Your task to perform on an android device: make emails show in primary in the gmail app Image 0: 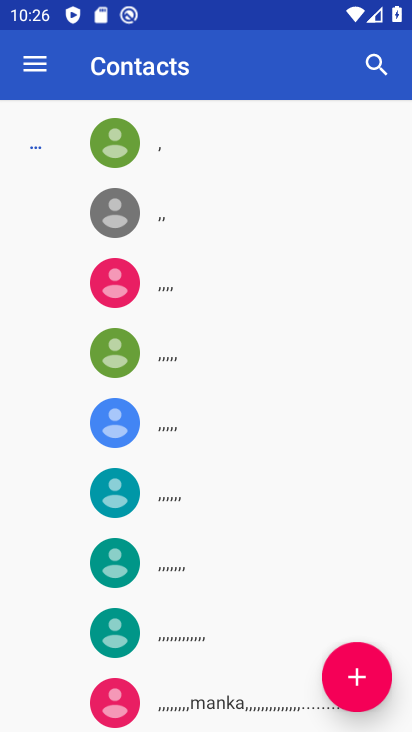
Step 0: press back button
Your task to perform on an android device: make emails show in primary in the gmail app Image 1: 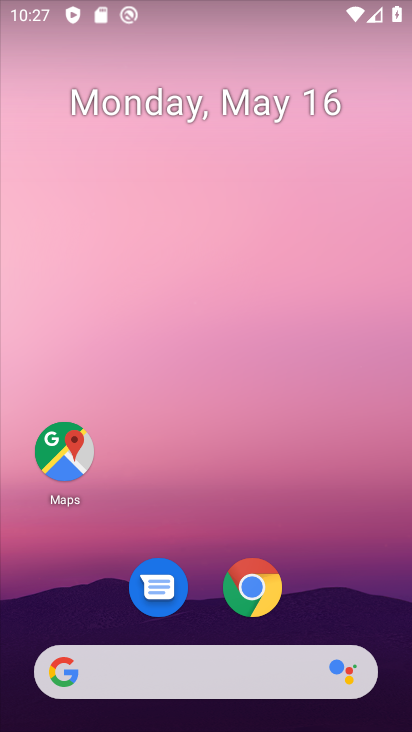
Step 1: drag from (326, 573) to (250, 0)
Your task to perform on an android device: make emails show in primary in the gmail app Image 2: 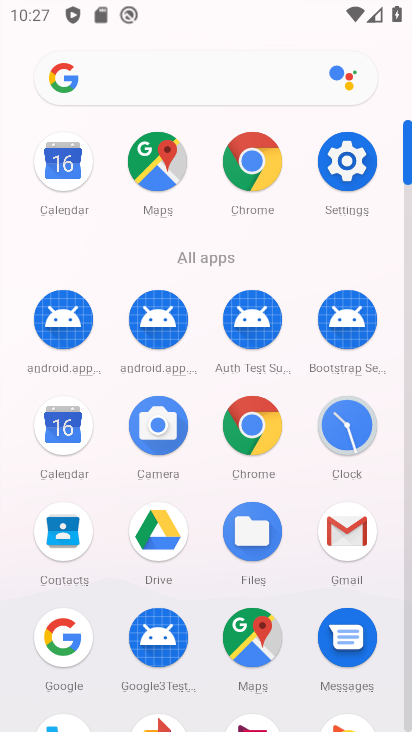
Step 2: drag from (13, 450) to (0, 229)
Your task to perform on an android device: make emails show in primary in the gmail app Image 3: 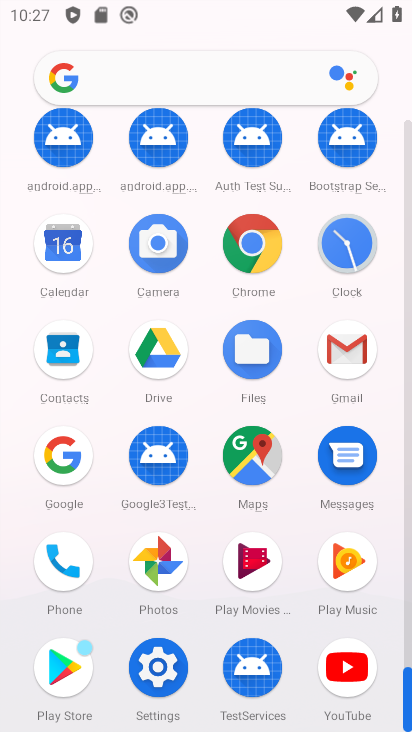
Step 3: click (344, 341)
Your task to perform on an android device: make emails show in primary in the gmail app Image 4: 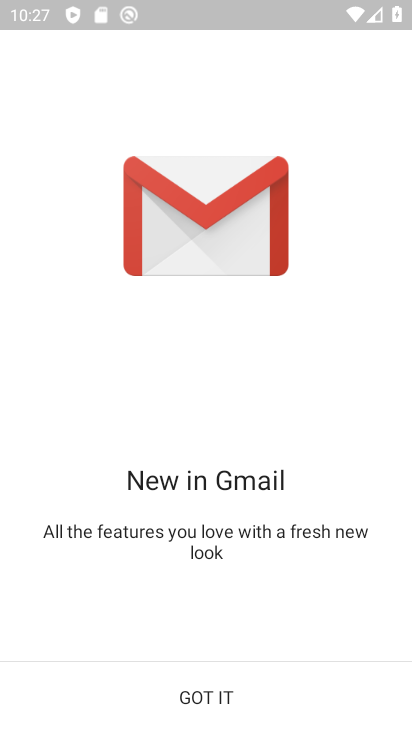
Step 4: click (187, 687)
Your task to perform on an android device: make emails show in primary in the gmail app Image 5: 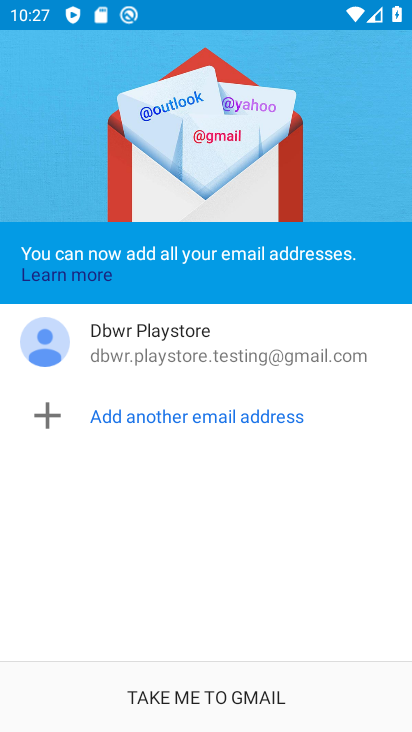
Step 5: click (204, 695)
Your task to perform on an android device: make emails show in primary in the gmail app Image 6: 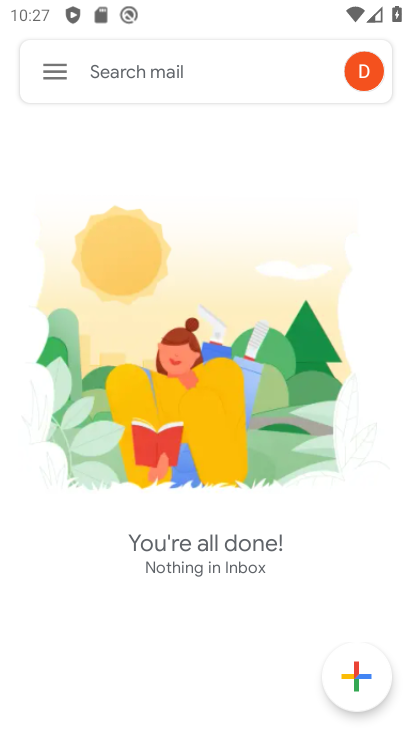
Step 6: click (59, 72)
Your task to perform on an android device: make emails show in primary in the gmail app Image 7: 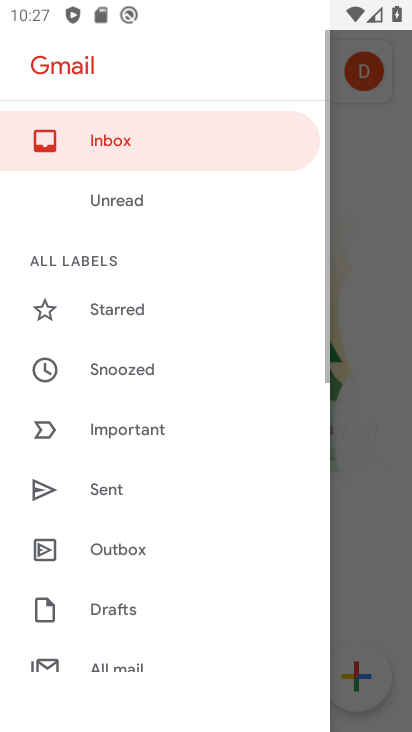
Step 7: drag from (168, 589) to (175, 146)
Your task to perform on an android device: make emails show in primary in the gmail app Image 8: 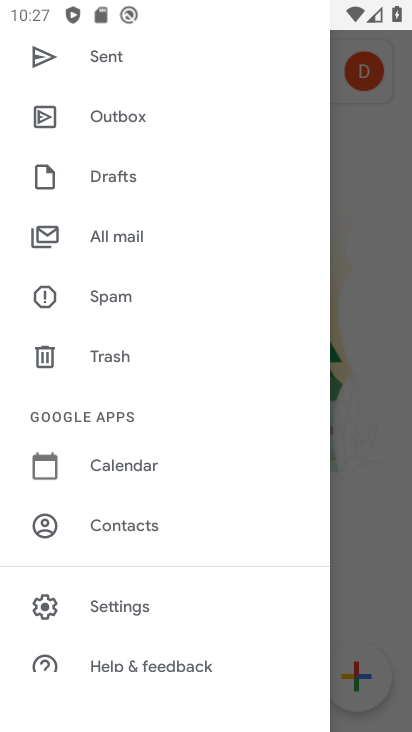
Step 8: drag from (171, 626) to (199, 212)
Your task to perform on an android device: make emails show in primary in the gmail app Image 9: 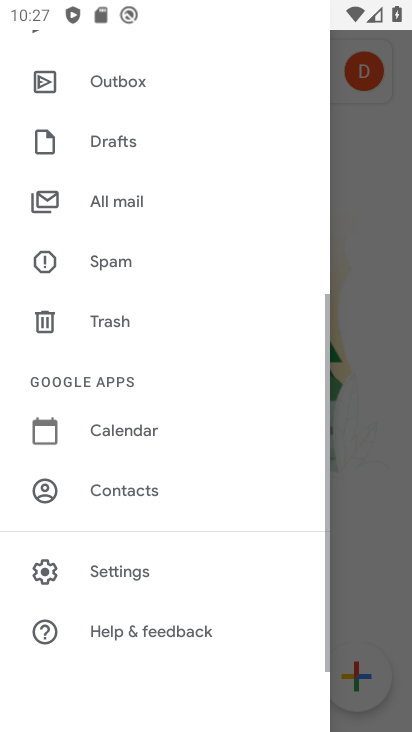
Step 9: click (146, 570)
Your task to perform on an android device: make emails show in primary in the gmail app Image 10: 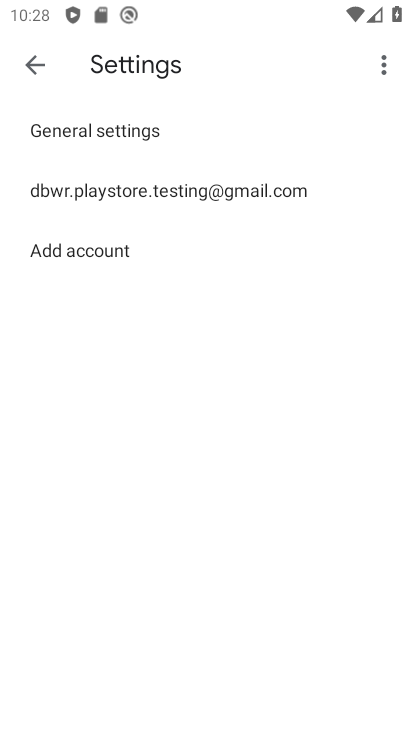
Step 10: click (126, 190)
Your task to perform on an android device: make emails show in primary in the gmail app Image 11: 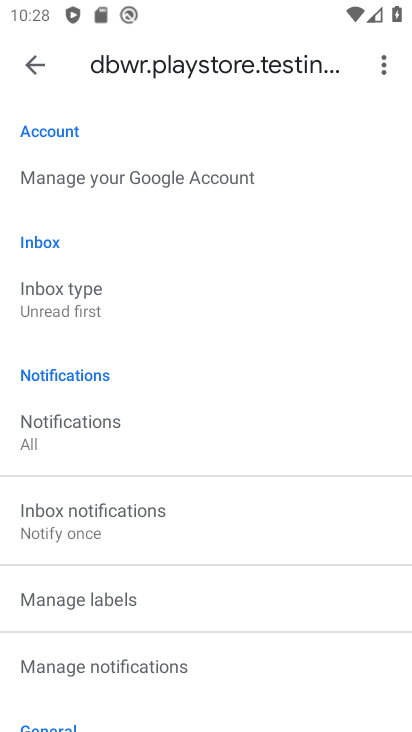
Step 11: click (128, 307)
Your task to perform on an android device: make emails show in primary in the gmail app Image 12: 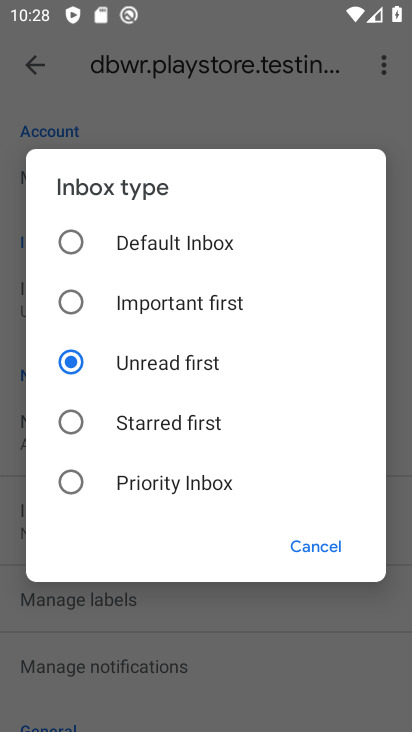
Step 12: click (141, 233)
Your task to perform on an android device: make emails show in primary in the gmail app Image 13: 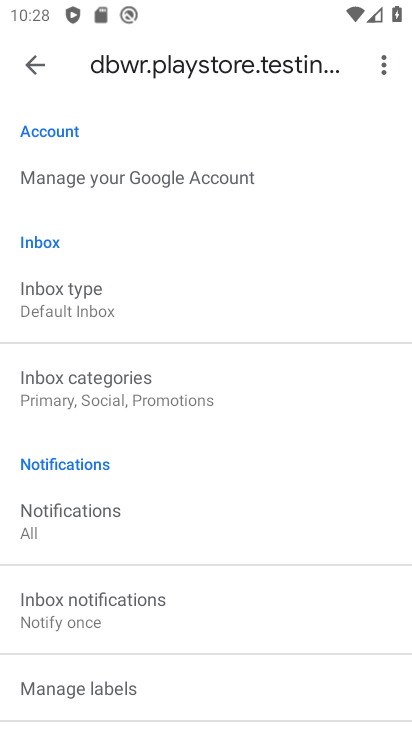
Step 13: click (124, 396)
Your task to perform on an android device: make emails show in primary in the gmail app Image 14: 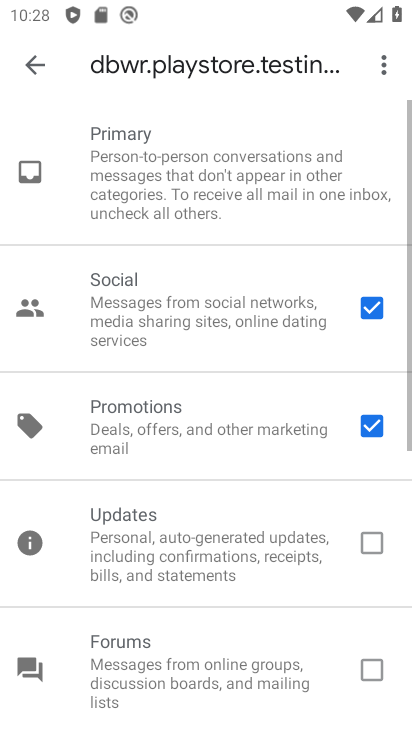
Step 14: click (366, 305)
Your task to perform on an android device: make emails show in primary in the gmail app Image 15: 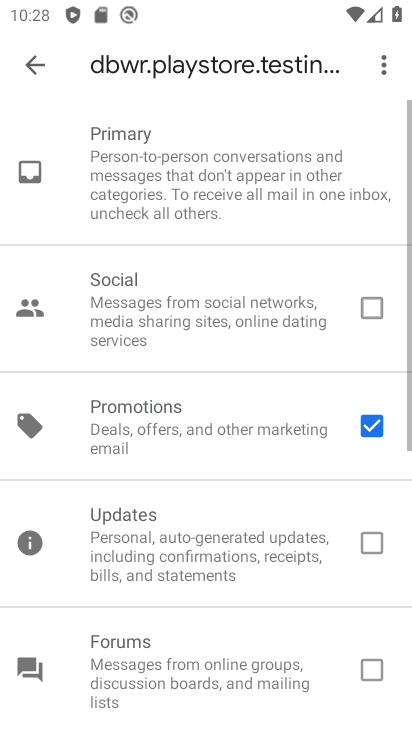
Step 15: click (363, 429)
Your task to perform on an android device: make emails show in primary in the gmail app Image 16: 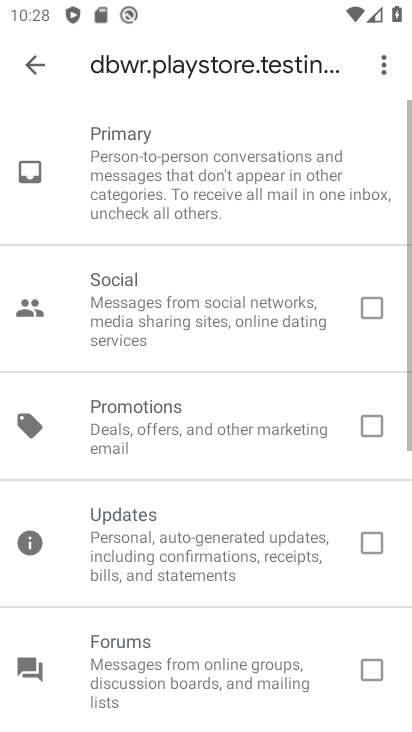
Step 16: click (37, 74)
Your task to perform on an android device: make emails show in primary in the gmail app Image 17: 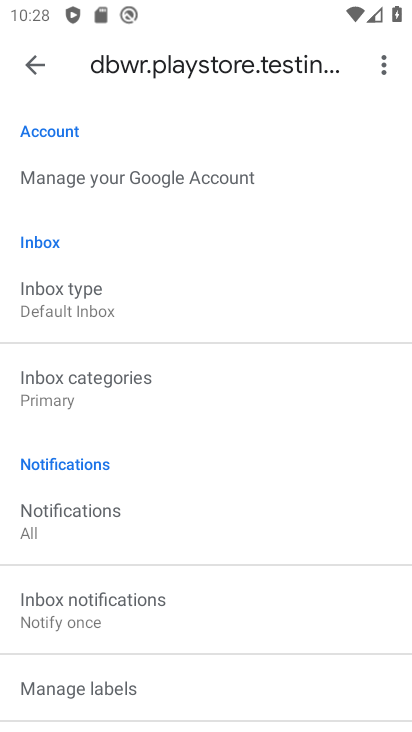
Step 17: task complete